Your task to perform on an android device: check google app version Image 0: 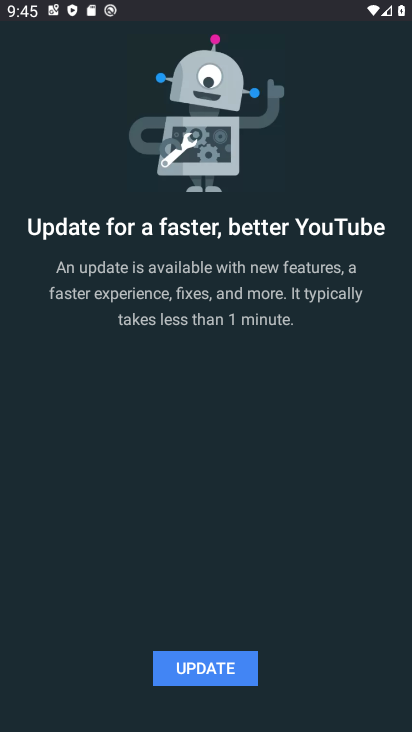
Step 0: press home button
Your task to perform on an android device: check google app version Image 1: 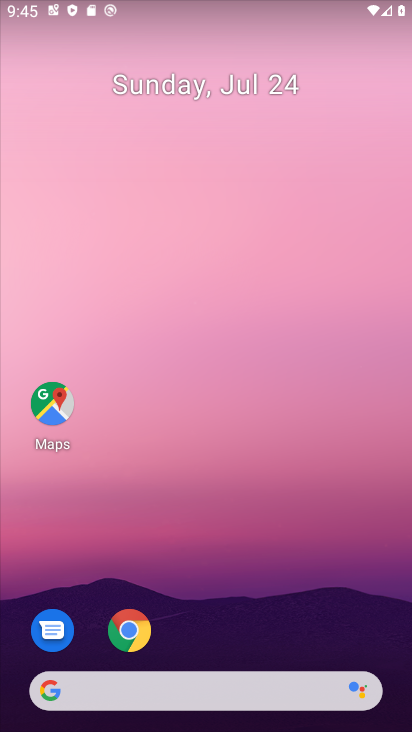
Step 1: click (209, 123)
Your task to perform on an android device: check google app version Image 2: 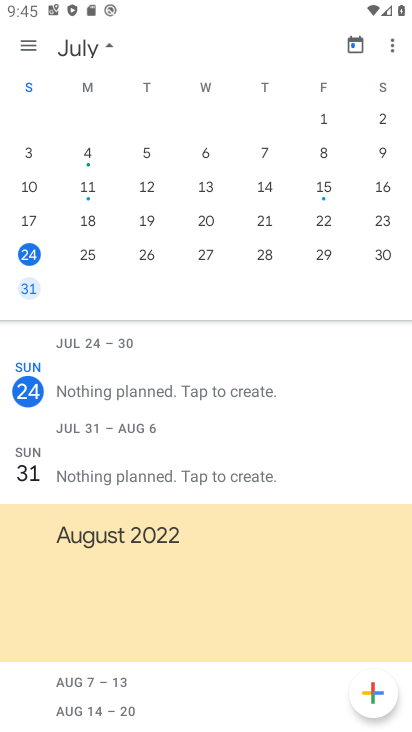
Step 2: press home button
Your task to perform on an android device: check google app version Image 3: 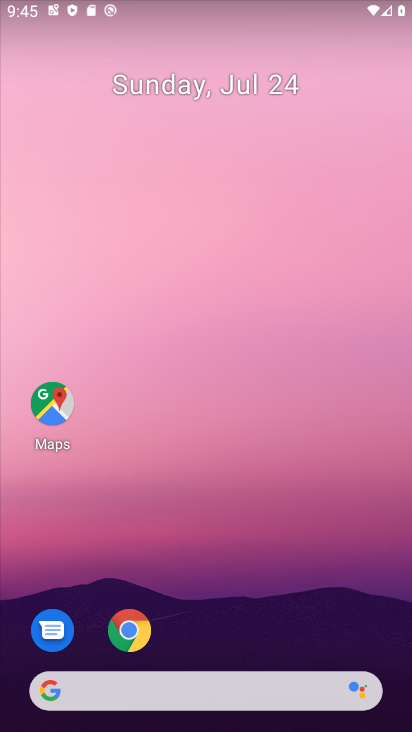
Step 3: drag from (244, 625) to (250, 217)
Your task to perform on an android device: check google app version Image 4: 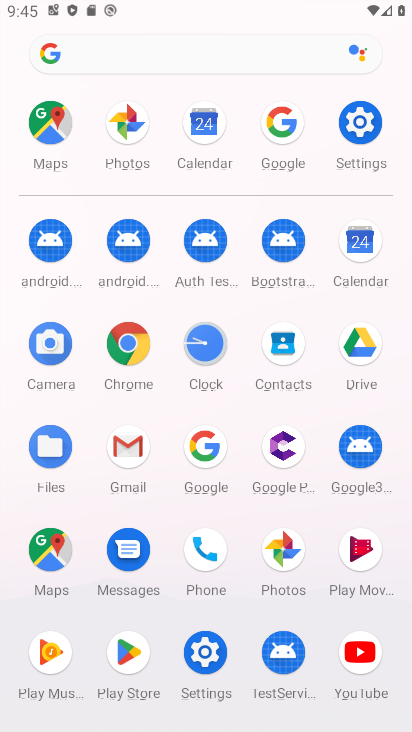
Step 4: click (278, 138)
Your task to perform on an android device: check google app version Image 5: 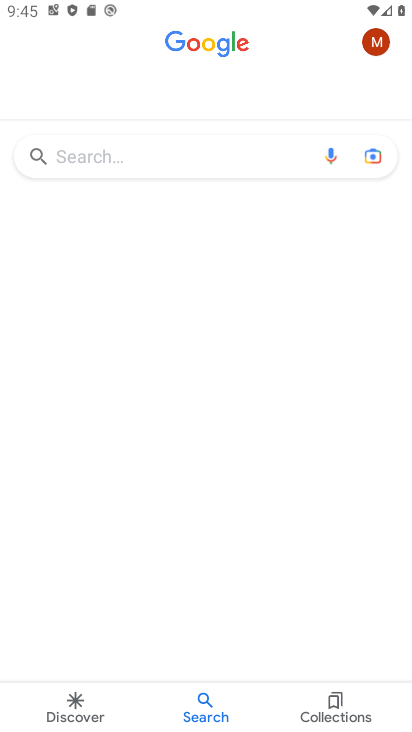
Step 5: click (379, 47)
Your task to perform on an android device: check google app version Image 6: 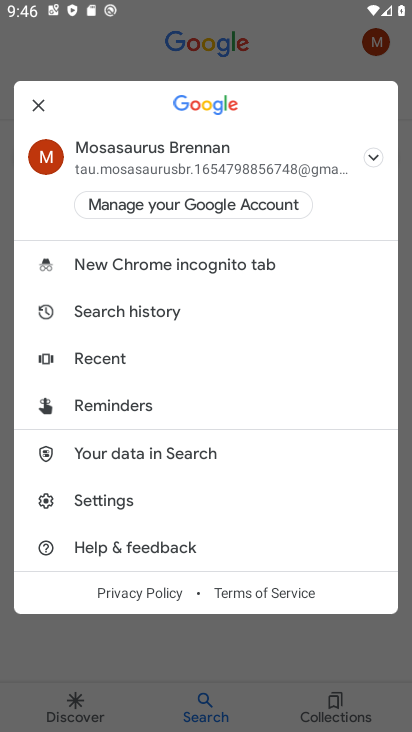
Step 6: click (93, 498)
Your task to perform on an android device: check google app version Image 7: 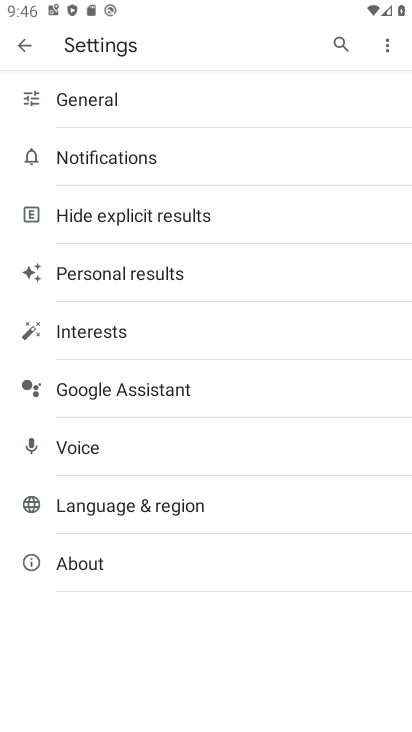
Step 7: click (127, 576)
Your task to perform on an android device: check google app version Image 8: 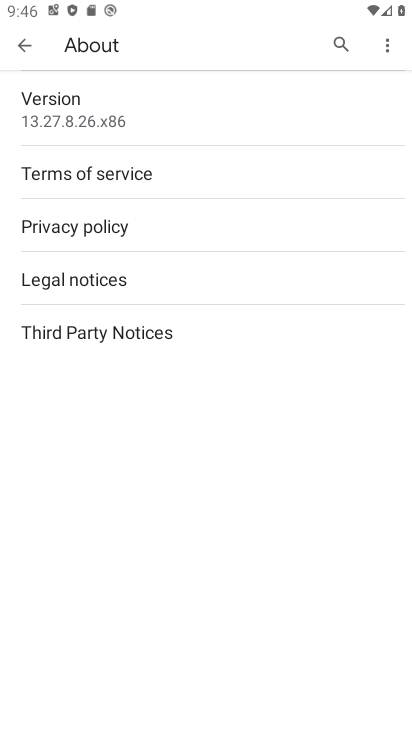
Step 8: click (147, 119)
Your task to perform on an android device: check google app version Image 9: 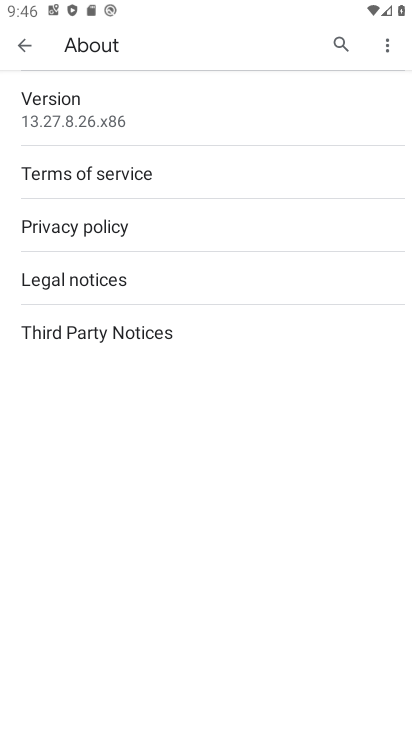
Step 9: click (216, 124)
Your task to perform on an android device: check google app version Image 10: 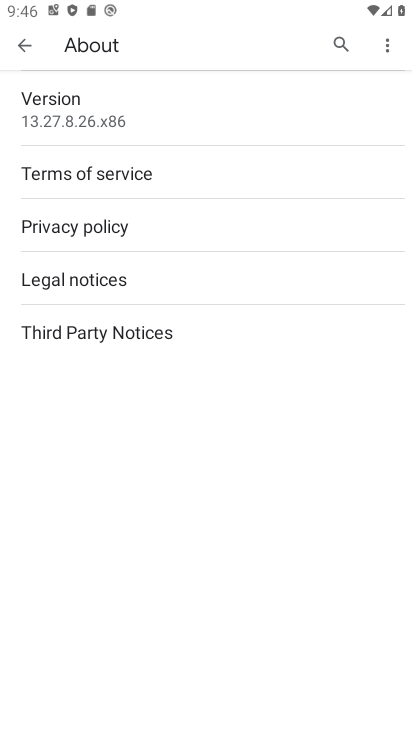
Step 10: task complete